Your task to perform on an android device: Search for sushi restaurants on Maps Image 0: 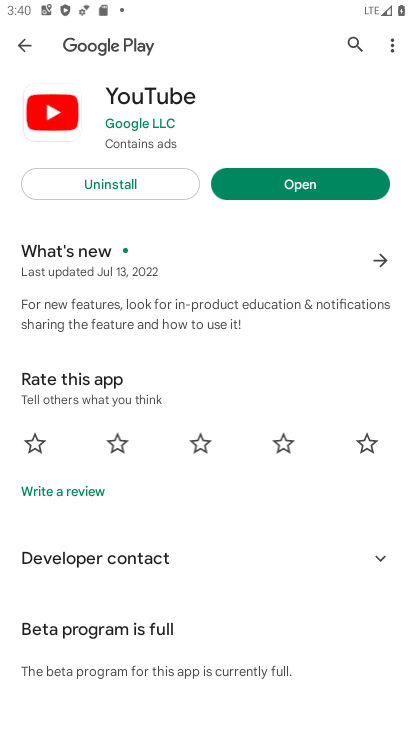
Step 0: press home button
Your task to perform on an android device: Search for sushi restaurants on Maps Image 1: 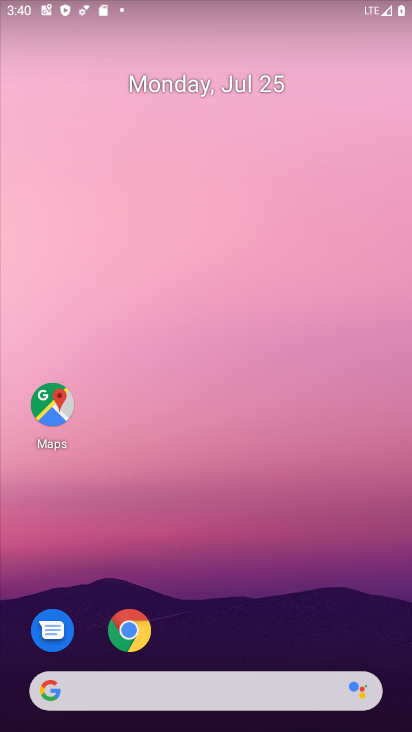
Step 1: click (51, 408)
Your task to perform on an android device: Search for sushi restaurants on Maps Image 2: 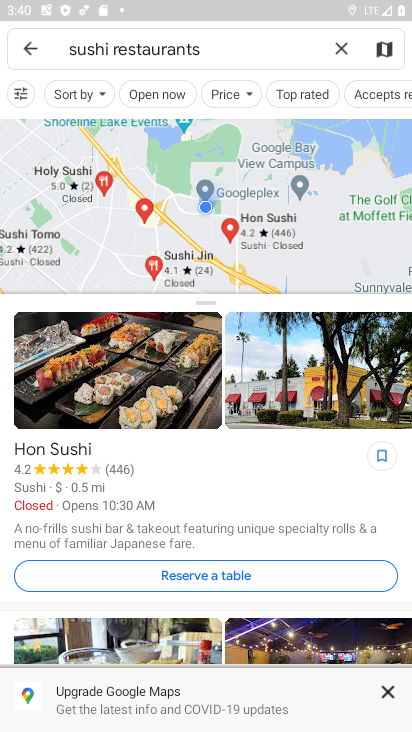
Step 2: task complete